Your task to perform on an android device: find which apps use the phone's location Image 0: 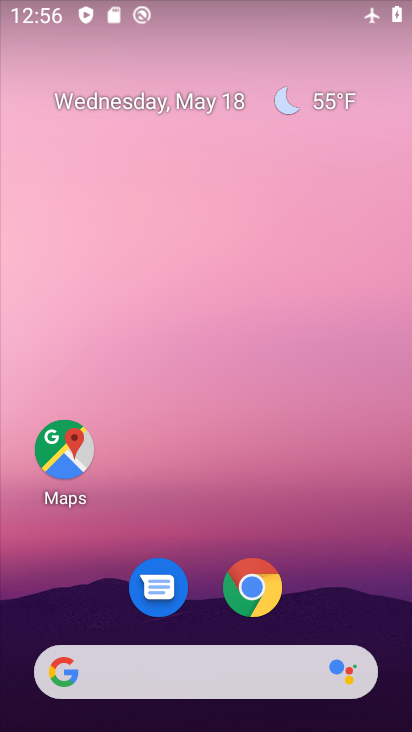
Step 0: drag from (193, 604) to (278, 209)
Your task to perform on an android device: find which apps use the phone's location Image 1: 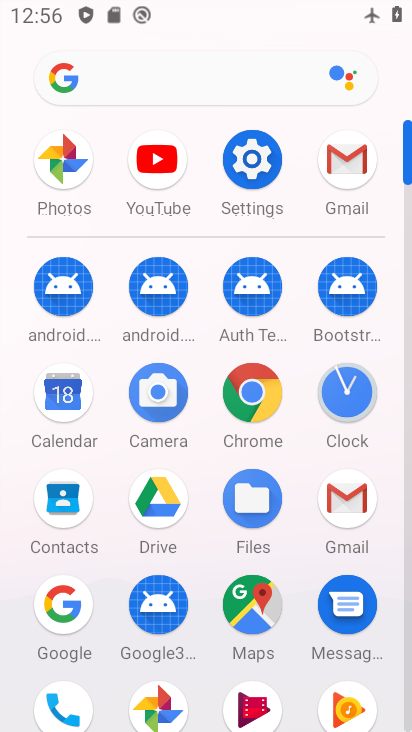
Step 1: click (267, 159)
Your task to perform on an android device: find which apps use the phone's location Image 2: 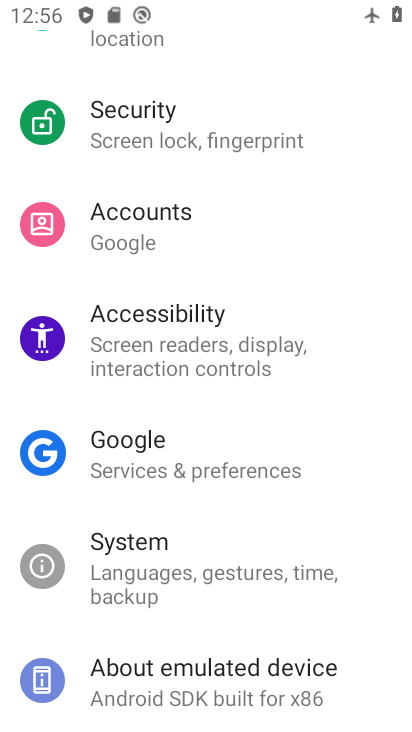
Step 2: drag from (222, 219) to (177, 649)
Your task to perform on an android device: find which apps use the phone's location Image 3: 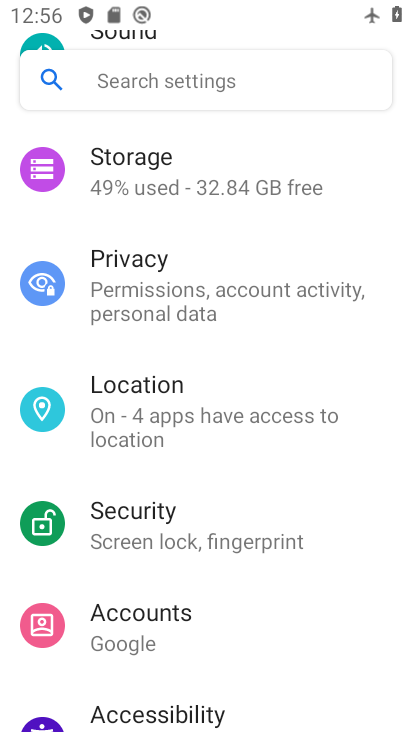
Step 3: click (140, 415)
Your task to perform on an android device: find which apps use the phone's location Image 4: 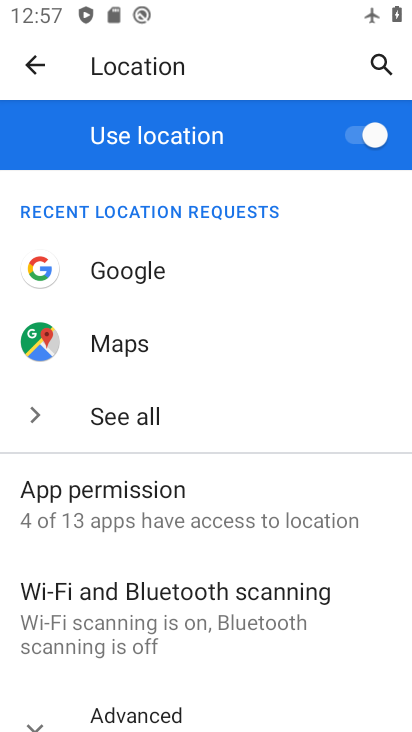
Step 4: click (216, 474)
Your task to perform on an android device: find which apps use the phone's location Image 5: 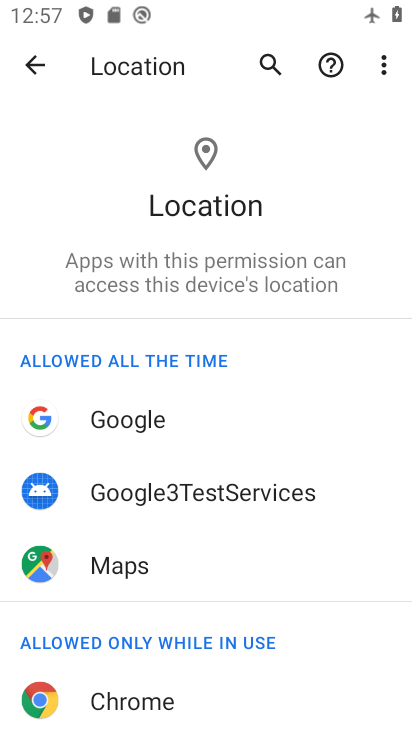
Step 5: task complete